Your task to perform on an android device: Turn off the flashlight Image 0: 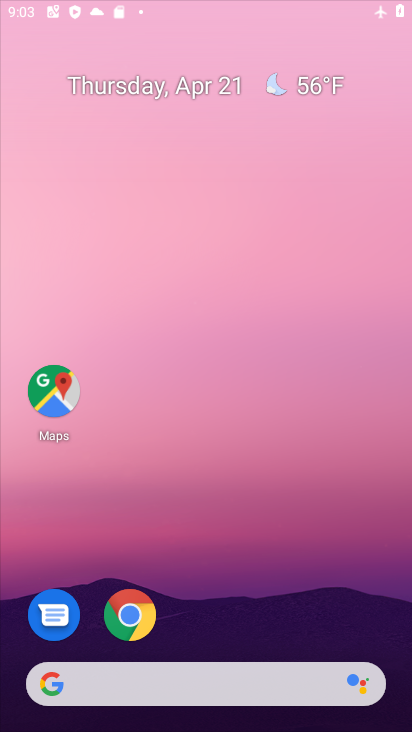
Step 0: drag from (318, 626) to (255, 212)
Your task to perform on an android device: Turn off the flashlight Image 1: 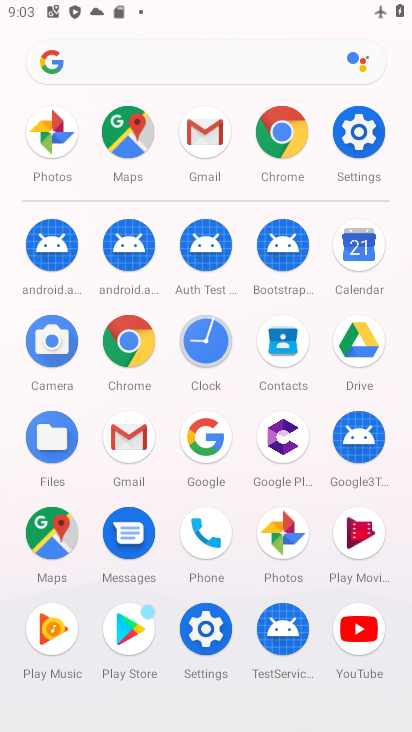
Step 1: task complete